Your task to perform on an android device: Open the map Image 0: 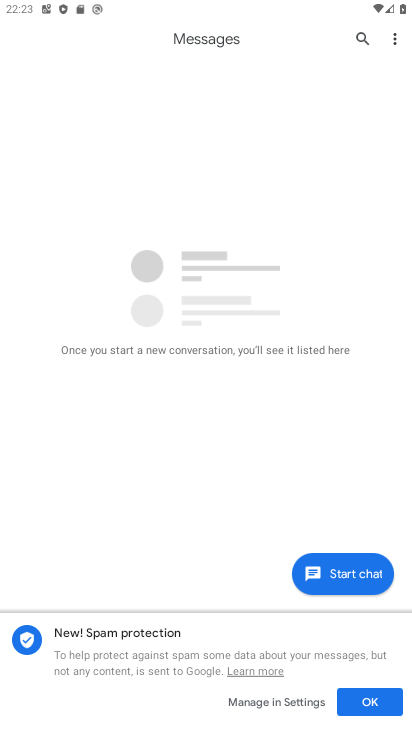
Step 0: press home button
Your task to perform on an android device: Open the map Image 1: 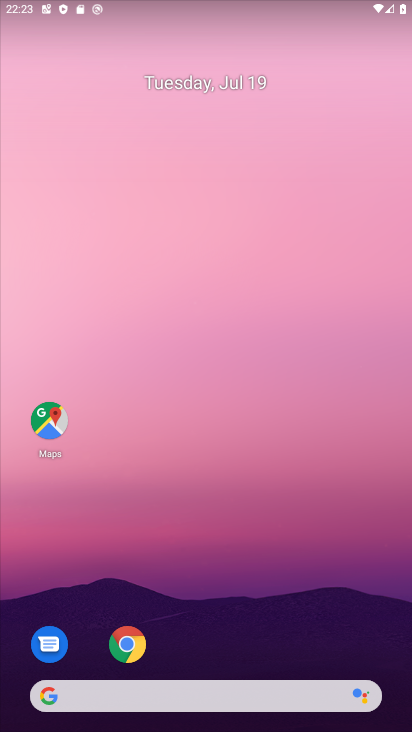
Step 1: drag from (245, 730) to (245, 453)
Your task to perform on an android device: Open the map Image 2: 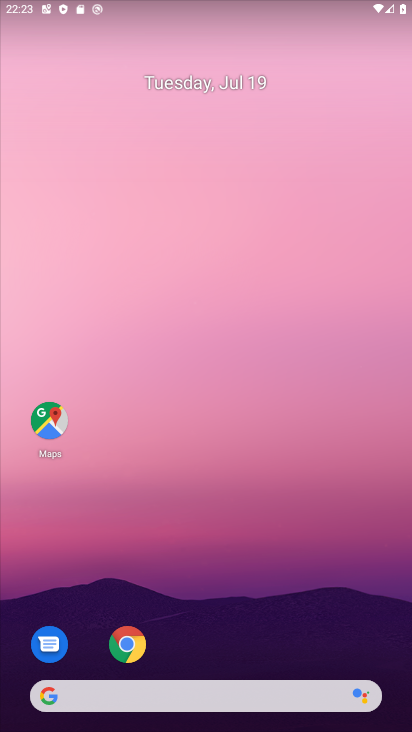
Step 2: click (45, 414)
Your task to perform on an android device: Open the map Image 3: 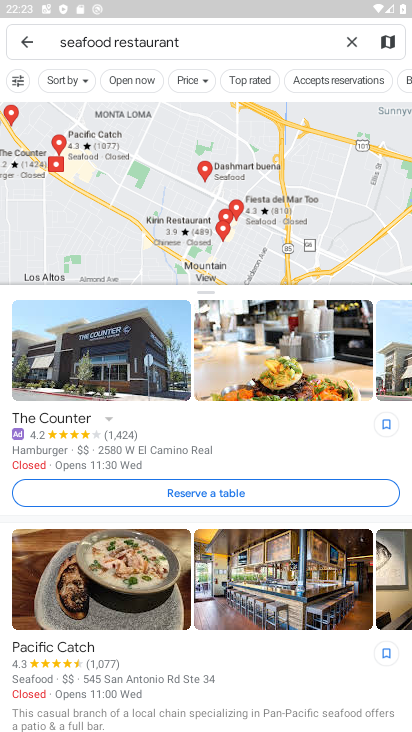
Step 3: task complete